Your task to perform on an android device: Show me popular videos on Youtube Image 0: 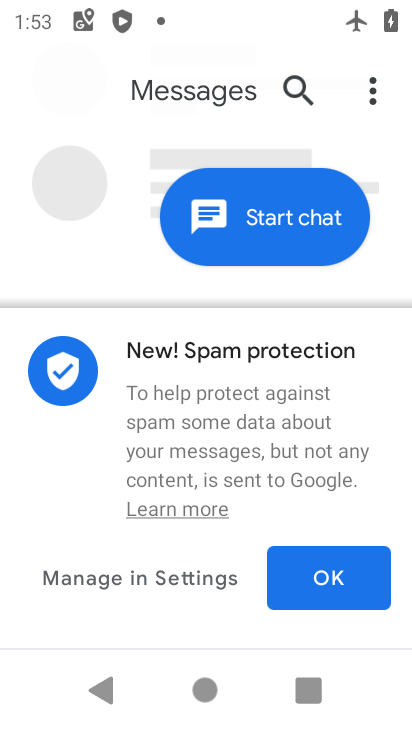
Step 0: press home button
Your task to perform on an android device: Show me popular videos on Youtube Image 1: 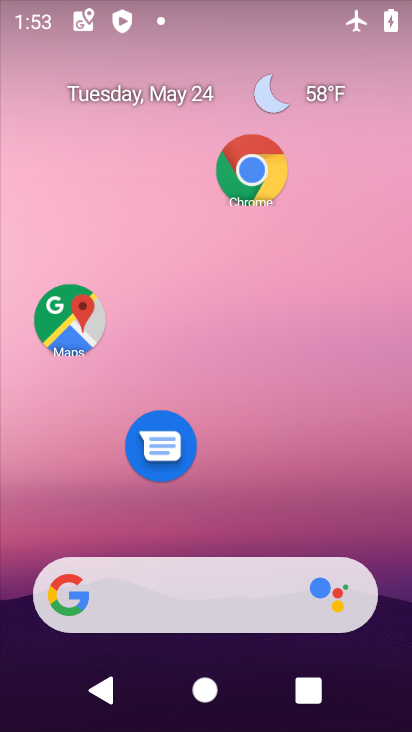
Step 1: drag from (189, 677) to (256, 276)
Your task to perform on an android device: Show me popular videos on Youtube Image 2: 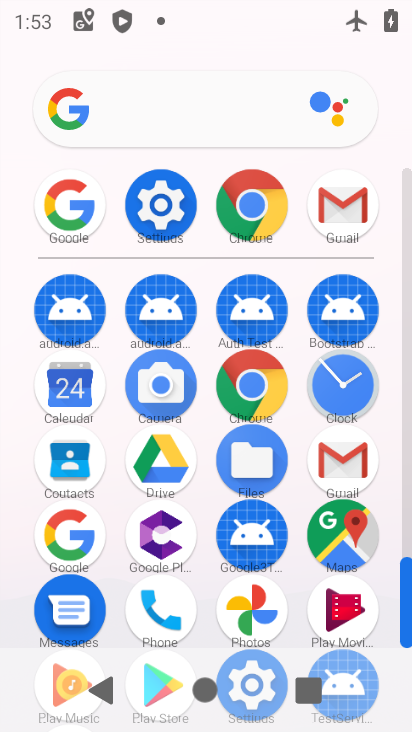
Step 2: drag from (242, 546) to (220, 132)
Your task to perform on an android device: Show me popular videos on Youtube Image 3: 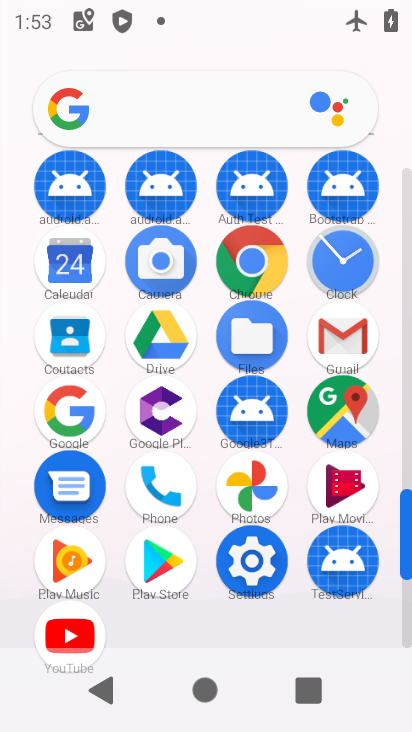
Step 3: click (69, 627)
Your task to perform on an android device: Show me popular videos on Youtube Image 4: 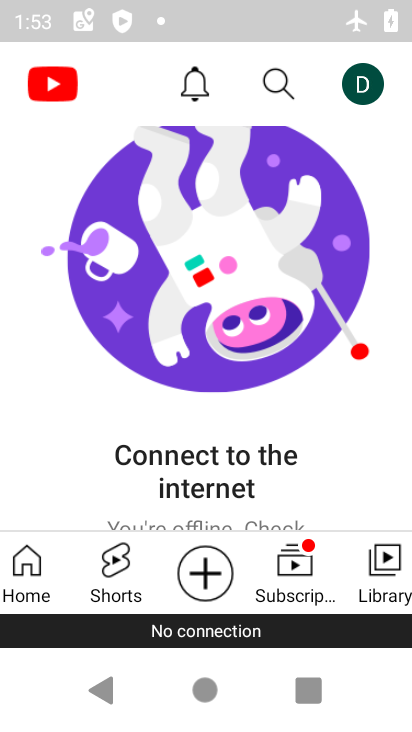
Step 4: click (19, 580)
Your task to perform on an android device: Show me popular videos on Youtube Image 5: 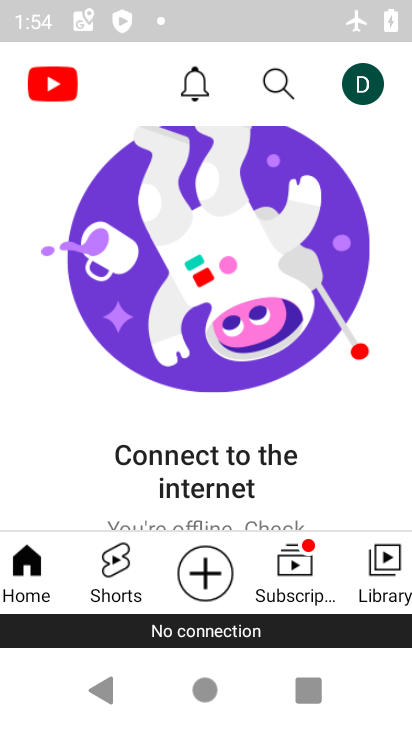
Step 5: task complete